Your task to perform on an android device: open app "The Home Depot" (install if not already installed) and enter user name: "taproot@icloud.com" and password: "executions" Image 0: 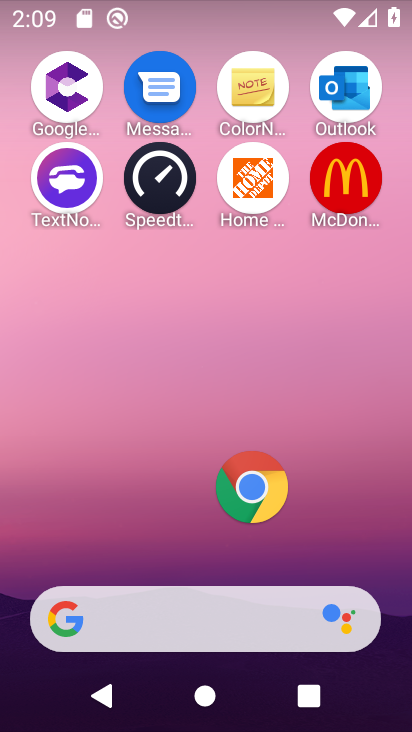
Step 0: drag from (136, 526) to (150, 82)
Your task to perform on an android device: open app "The Home Depot" (install if not already installed) and enter user name: "taproot@icloud.com" and password: "executions" Image 1: 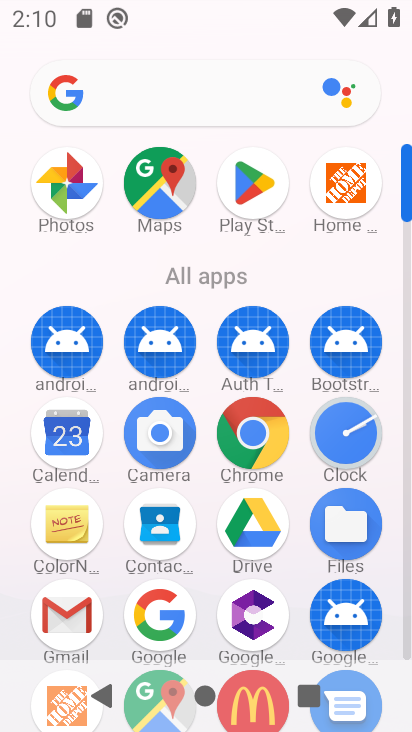
Step 1: click (248, 188)
Your task to perform on an android device: open app "The Home Depot" (install if not already installed) and enter user name: "taproot@icloud.com" and password: "executions" Image 2: 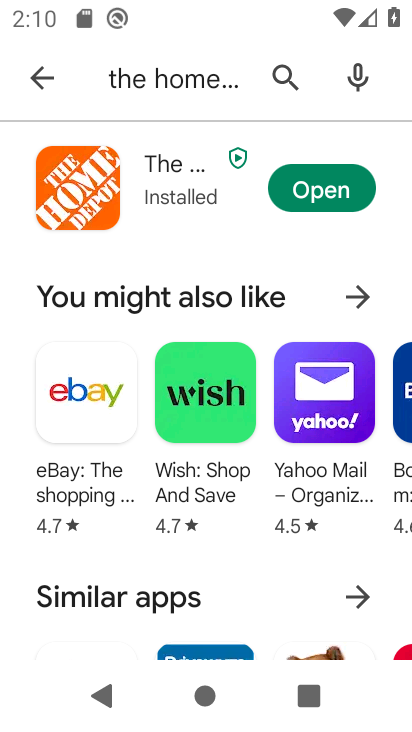
Step 2: click (321, 195)
Your task to perform on an android device: open app "The Home Depot" (install if not already installed) and enter user name: "taproot@icloud.com" and password: "executions" Image 3: 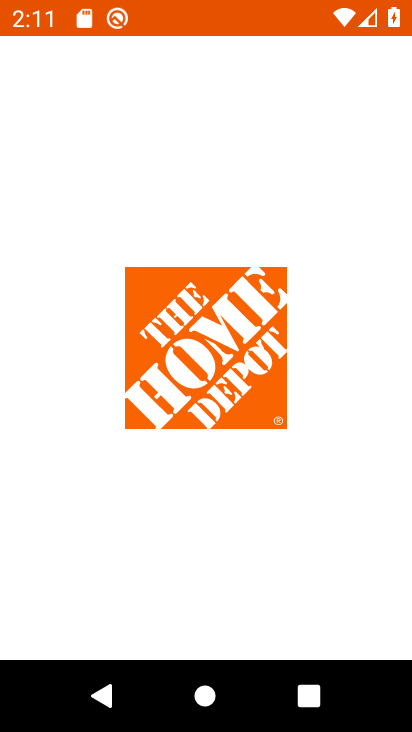
Step 3: task complete